Your task to perform on an android device: Search for seafood restaurants on Google Maps Image 0: 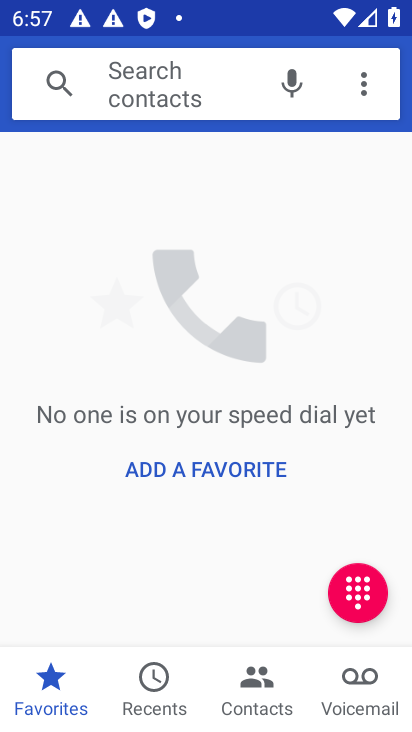
Step 0: press home button
Your task to perform on an android device: Search for seafood restaurants on Google Maps Image 1: 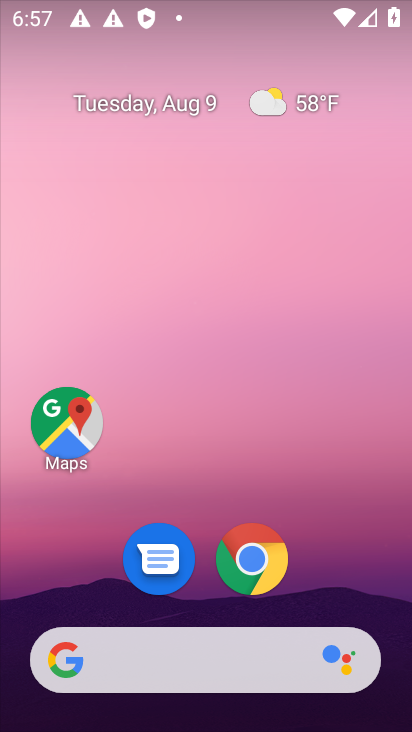
Step 1: click (76, 421)
Your task to perform on an android device: Search for seafood restaurants on Google Maps Image 2: 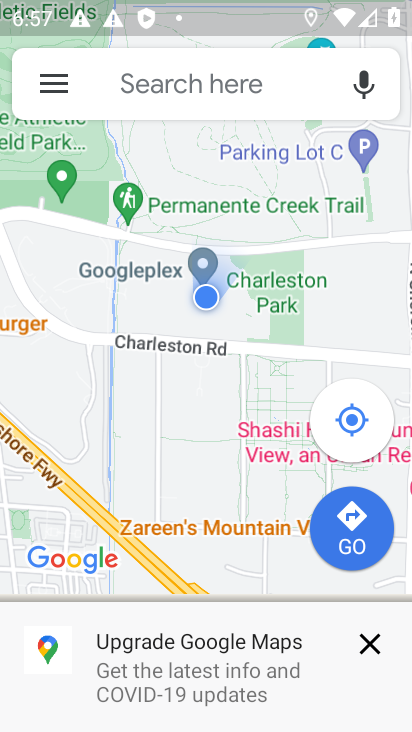
Step 2: click (366, 642)
Your task to perform on an android device: Search for seafood restaurants on Google Maps Image 3: 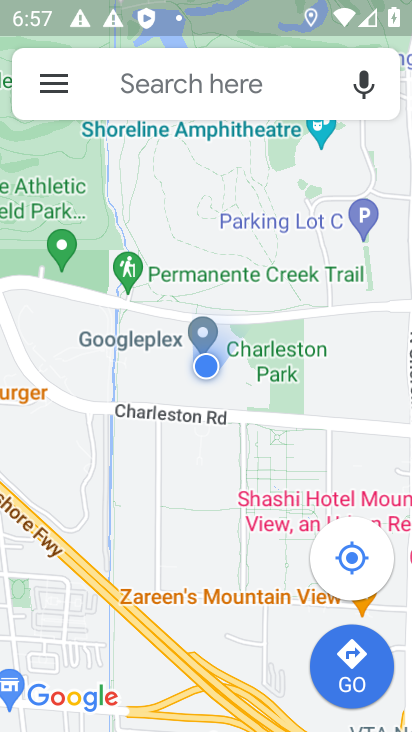
Step 3: click (204, 82)
Your task to perform on an android device: Search for seafood restaurants on Google Maps Image 4: 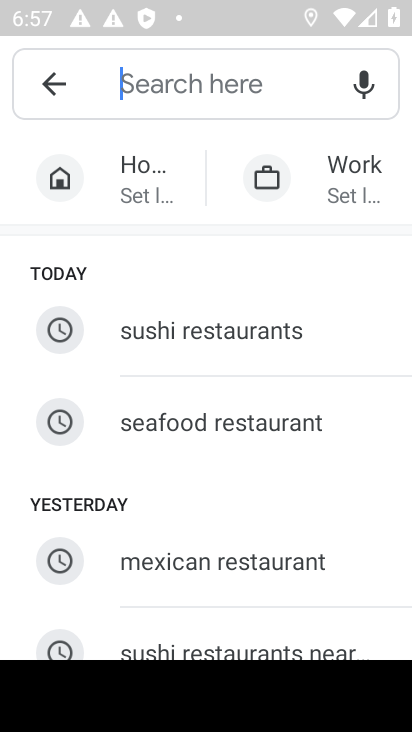
Step 4: type "seafood restaurant"
Your task to perform on an android device: Search for seafood restaurants on Google Maps Image 5: 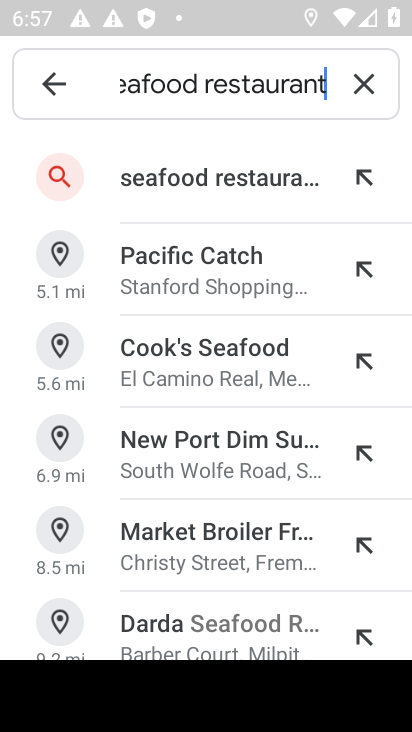
Step 5: click (206, 168)
Your task to perform on an android device: Search for seafood restaurants on Google Maps Image 6: 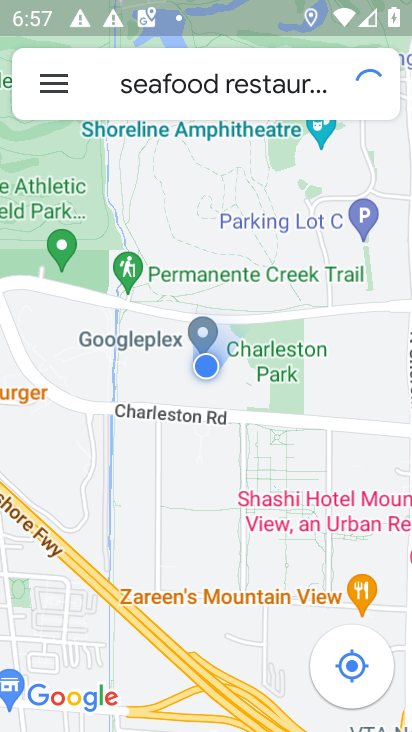
Step 6: task complete